Your task to perform on an android device: Turn off the flashlight Image 0: 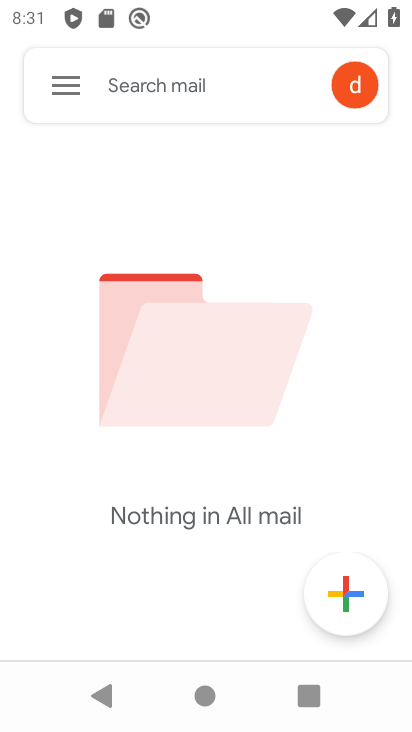
Step 0: press home button
Your task to perform on an android device: Turn off the flashlight Image 1: 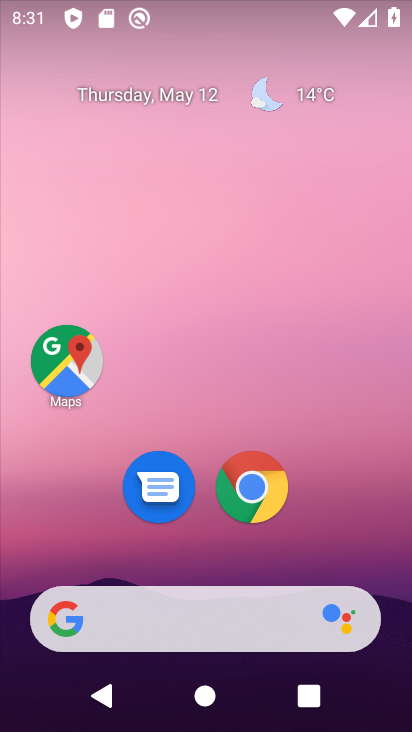
Step 1: drag from (7, 680) to (301, 118)
Your task to perform on an android device: Turn off the flashlight Image 2: 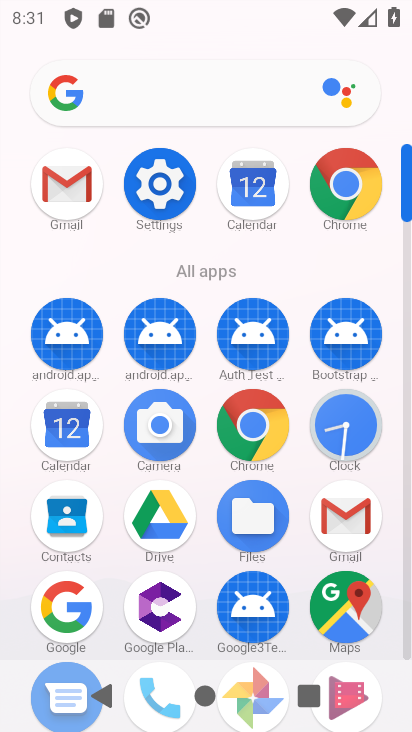
Step 2: click (144, 194)
Your task to perform on an android device: Turn off the flashlight Image 3: 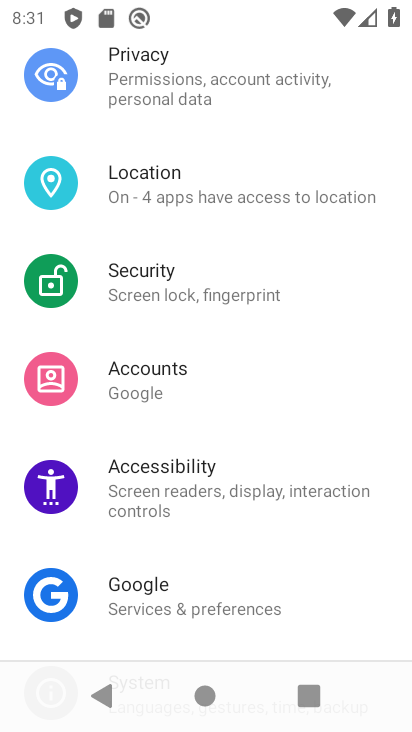
Step 3: click (240, 477)
Your task to perform on an android device: Turn off the flashlight Image 4: 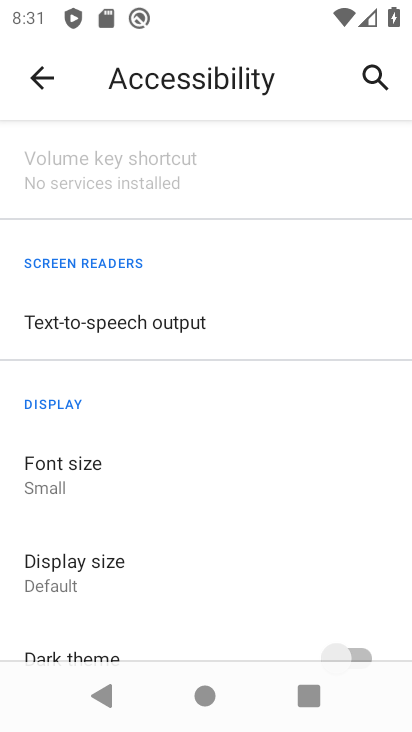
Step 4: task complete